Your task to perform on an android device: Search for Mexican restaurants on Maps Image 0: 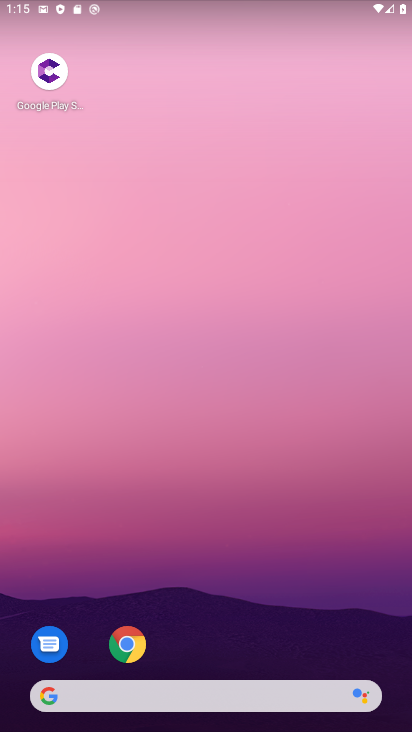
Step 0: drag from (287, 611) to (249, 58)
Your task to perform on an android device: Search for Mexican restaurants on Maps Image 1: 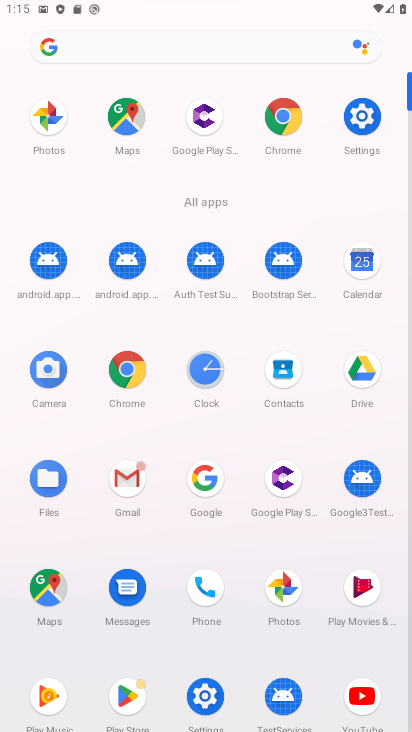
Step 1: click (137, 124)
Your task to perform on an android device: Search for Mexican restaurants on Maps Image 2: 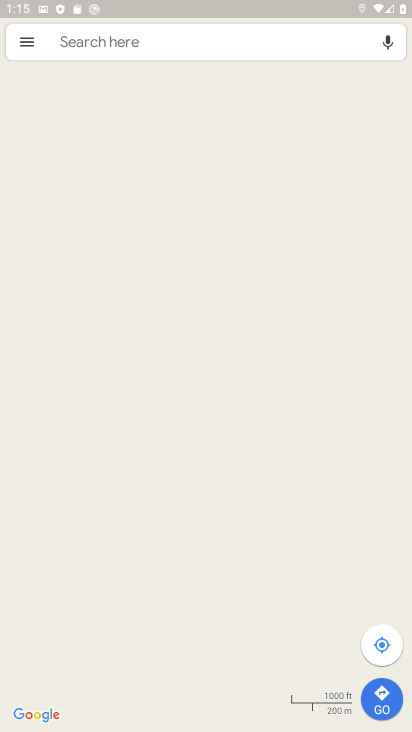
Step 2: click (217, 45)
Your task to perform on an android device: Search for Mexican restaurants on Maps Image 3: 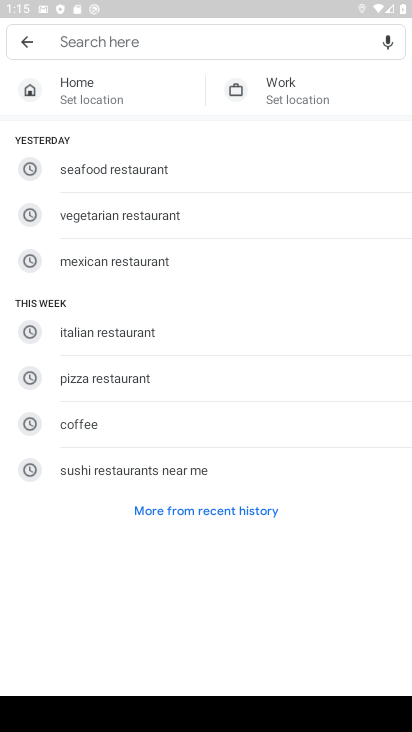
Step 3: type "mexican restaurants"
Your task to perform on an android device: Search for Mexican restaurants on Maps Image 4: 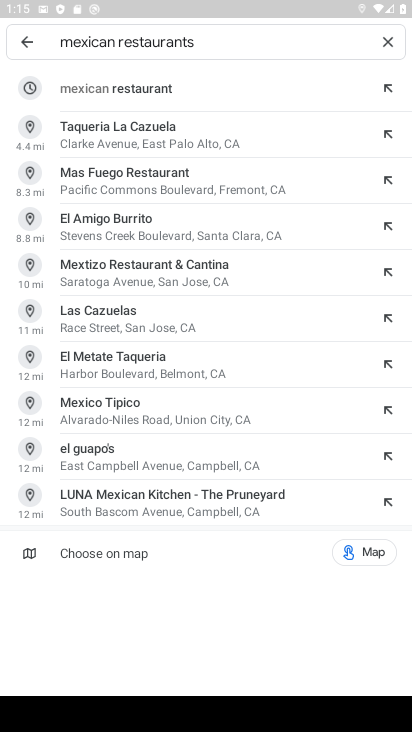
Step 4: press enter
Your task to perform on an android device: Search for Mexican restaurants on Maps Image 5: 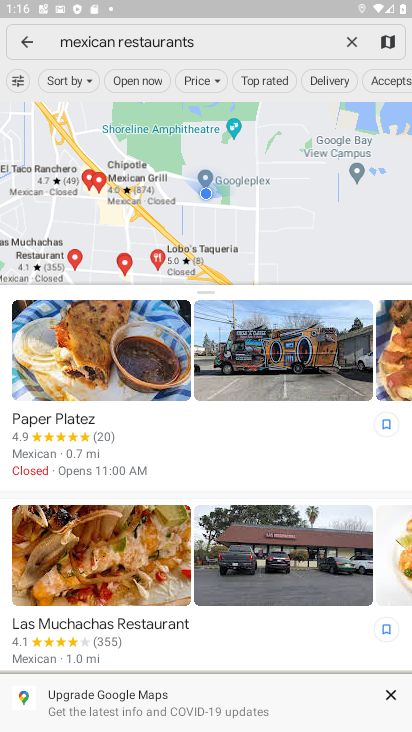
Step 5: task complete